Your task to perform on an android device: Do I have any events today? Image 0: 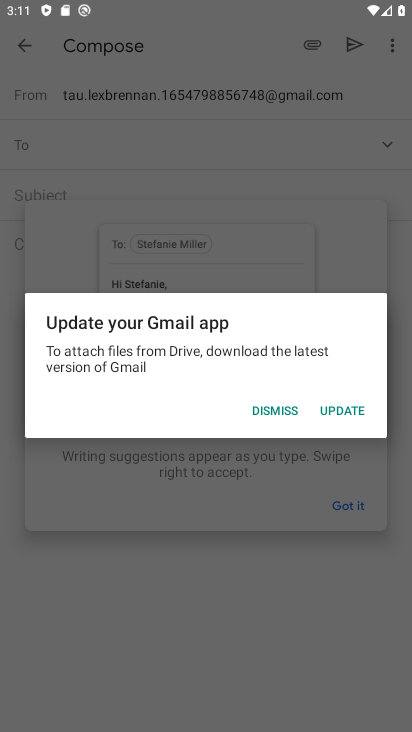
Step 0: press home button
Your task to perform on an android device: Do I have any events today? Image 1: 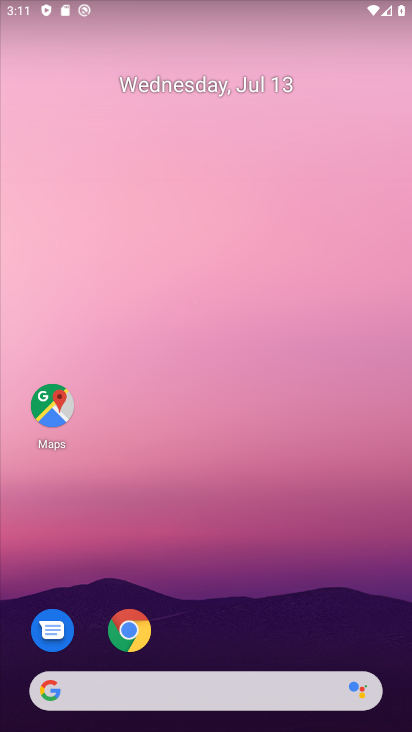
Step 1: drag from (229, 565) to (226, 33)
Your task to perform on an android device: Do I have any events today? Image 2: 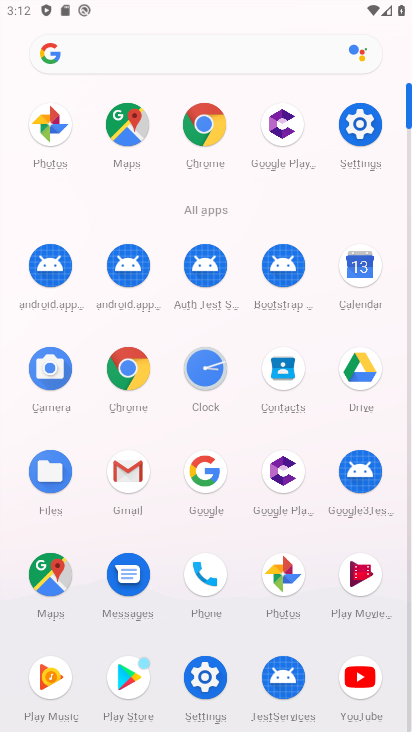
Step 2: click (359, 263)
Your task to perform on an android device: Do I have any events today? Image 3: 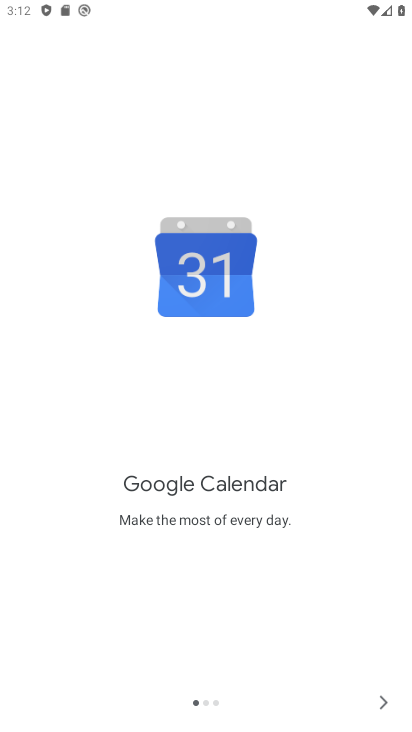
Step 3: click (382, 706)
Your task to perform on an android device: Do I have any events today? Image 4: 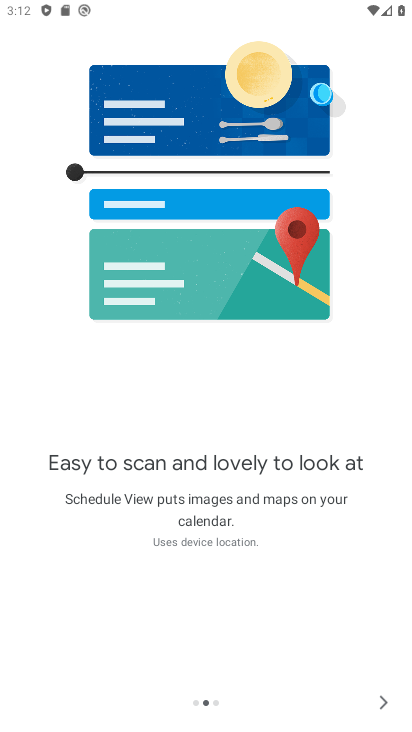
Step 4: click (382, 706)
Your task to perform on an android device: Do I have any events today? Image 5: 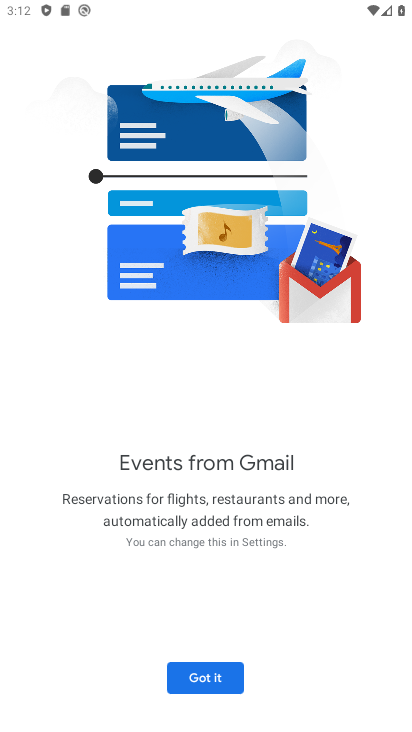
Step 5: click (202, 671)
Your task to perform on an android device: Do I have any events today? Image 6: 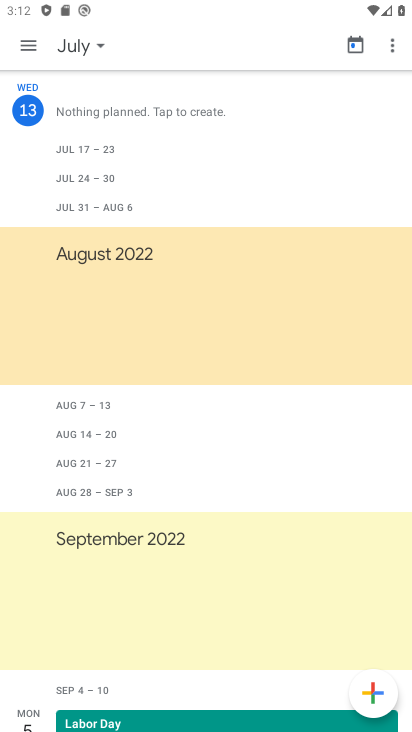
Step 6: click (22, 37)
Your task to perform on an android device: Do I have any events today? Image 7: 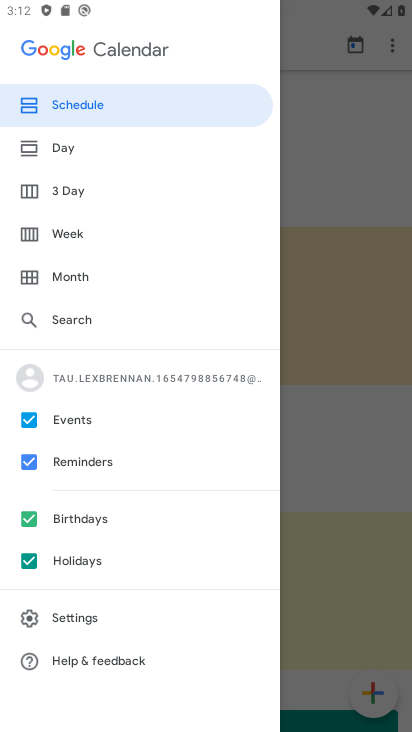
Step 7: click (58, 142)
Your task to perform on an android device: Do I have any events today? Image 8: 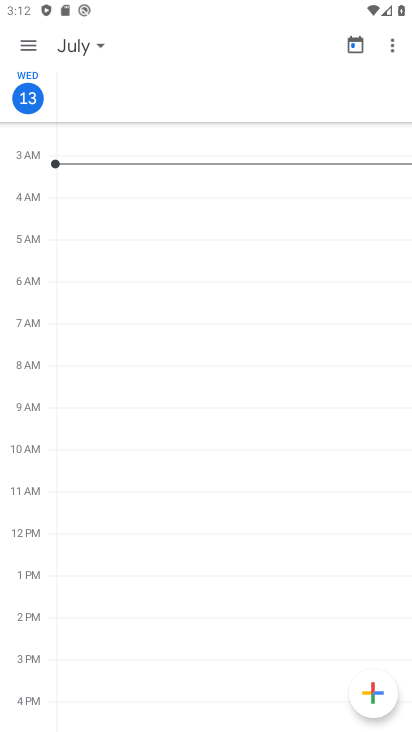
Step 8: click (97, 42)
Your task to perform on an android device: Do I have any events today? Image 9: 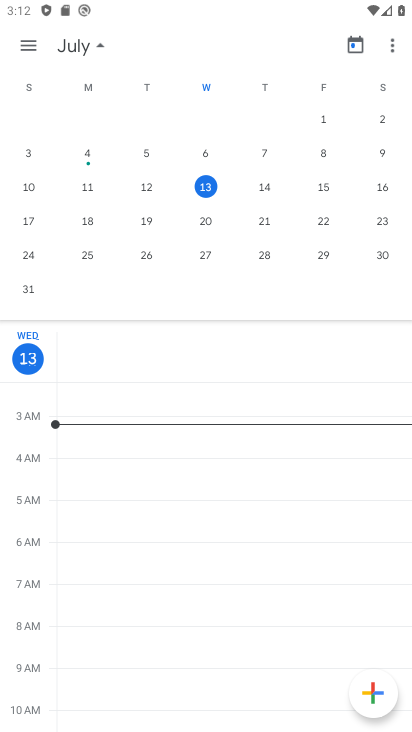
Step 9: click (210, 185)
Your task to perform on an android device: Do I have any events today? Image 10: 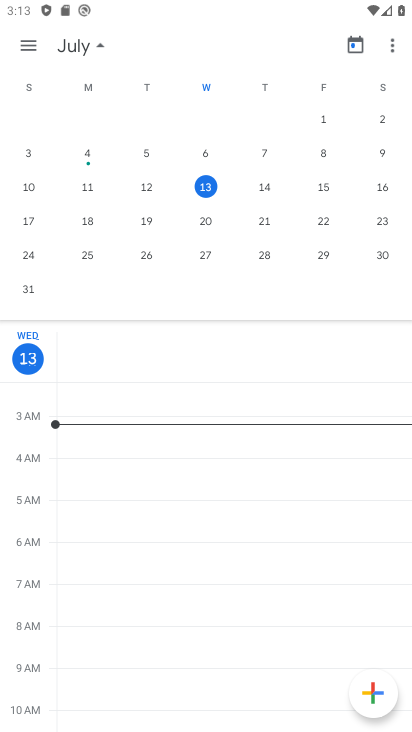
Step 10: click (210, 185)
Your task to perform on an android device: Do I have any events today? Image 11: 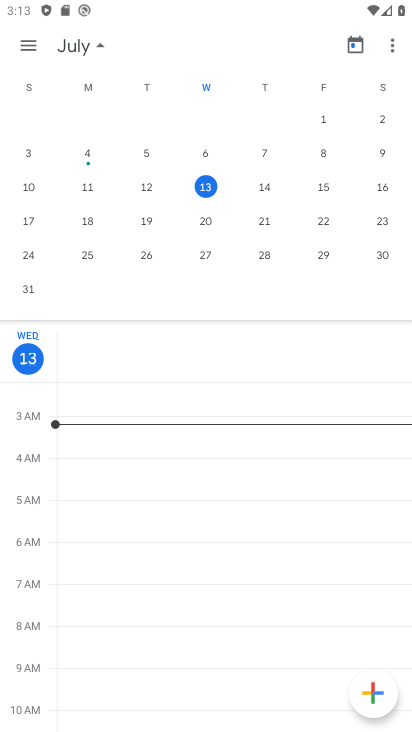
Step 11: task complete